Your task to perform on an android device: change the clock display to show seconds Image 0: 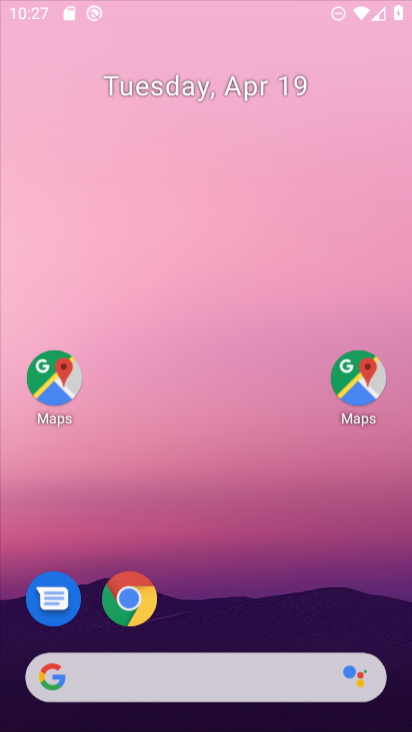
Step 0: drag from (311, 597) to (292, 87)
Your task to perform on an android device: change the clock display to show seconds Image 1: 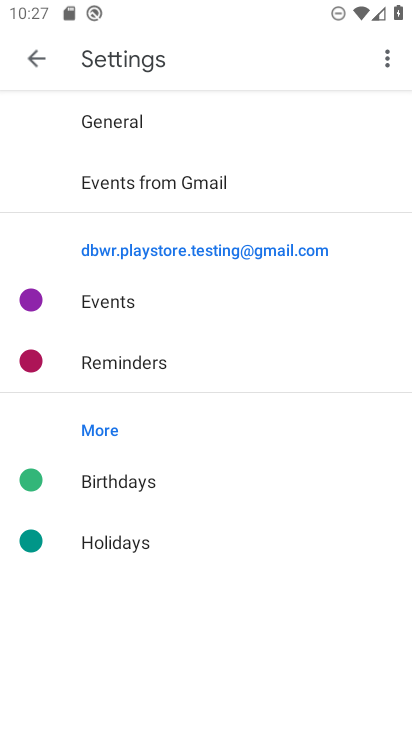
Step 1: press home button
Your task to perform on an android device: change the clock display to show seconds Image 2: 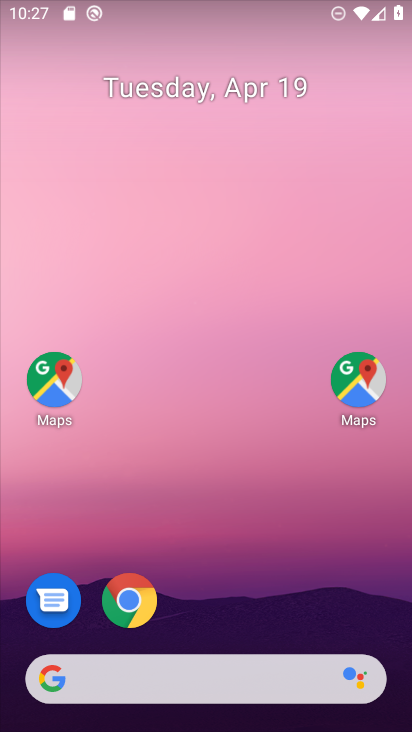
Step 2: drag from (221, 652) to (212, 69)
Your task to perform on an android device: change the clock display to show seconds Image 3: 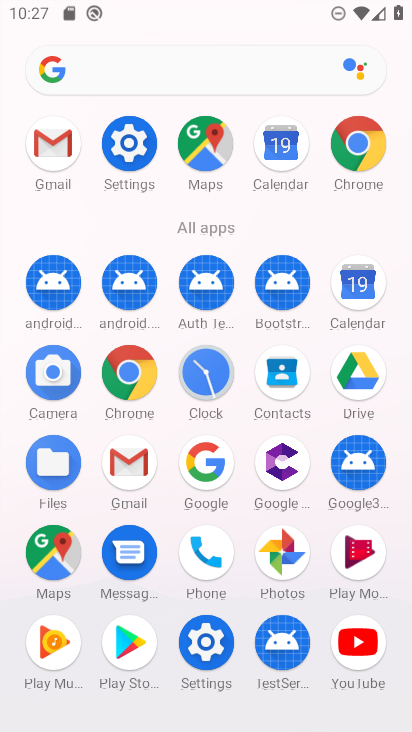
Step 3: click (208, 393)
Your task to perform on an android device: change the clock display to show seconds Image 4: 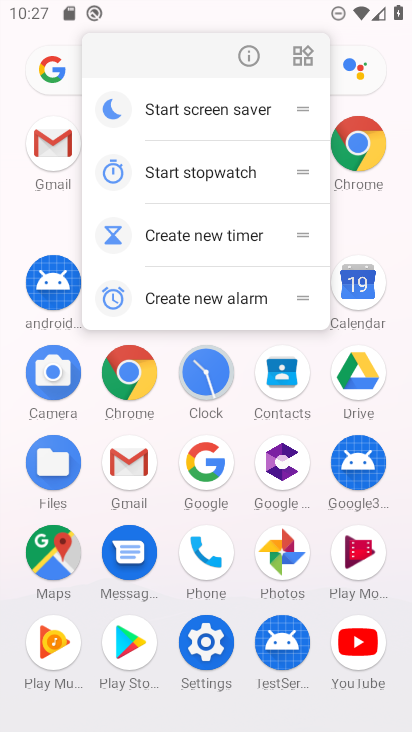
Step 4: click (213, 366)
Your task to perform on an android device: change the clock display to show seconds Image 5: 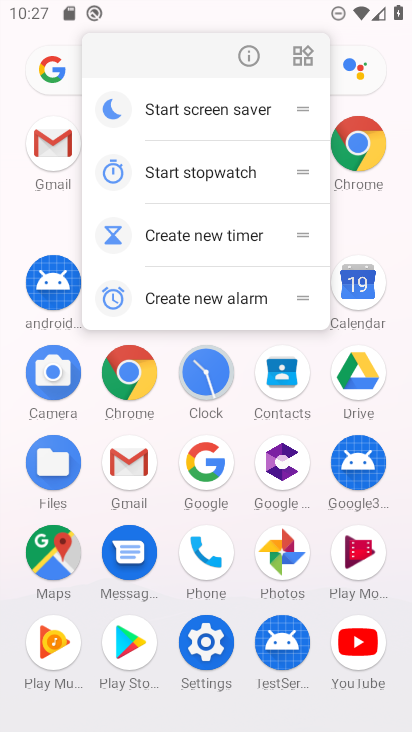
Step 5: click (212, 366)
Your task to perform on an android device: change the clock display to show seconds Image 6: 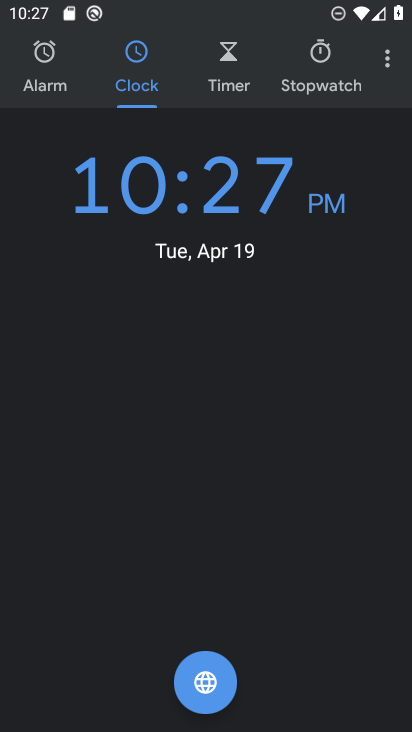
Step 6: click (394, 72)
Your task to perform on an android device: change the clock display to show seconds Image 7: 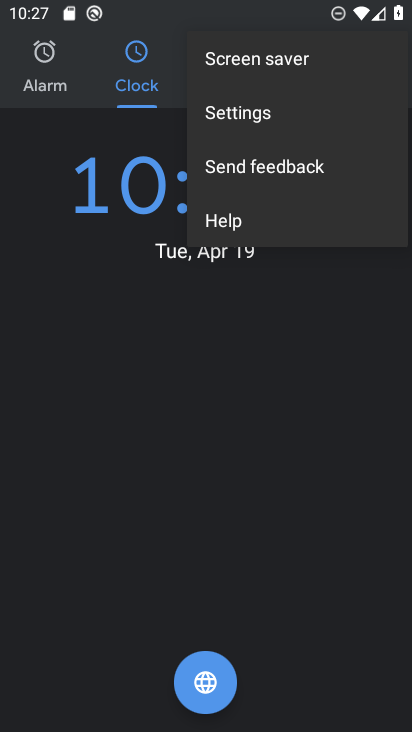
Step 7: click (285, 117)
Your task to perform on an android device: change the clock display to show seconds Image 8: 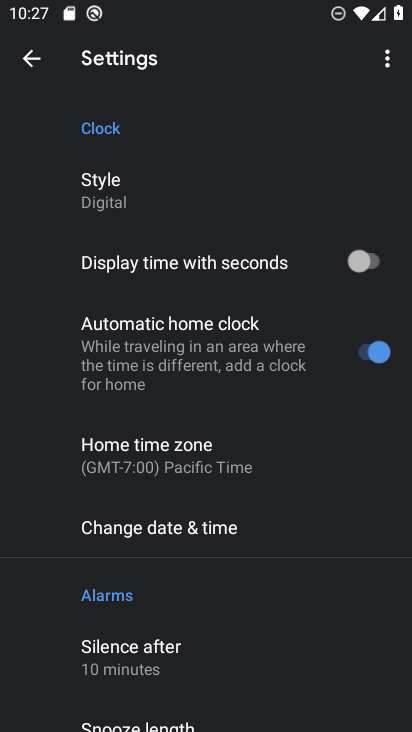
Step 8: click (374, 263)
Your task to perform on an android device: change the clock display to show seconds Image 9: 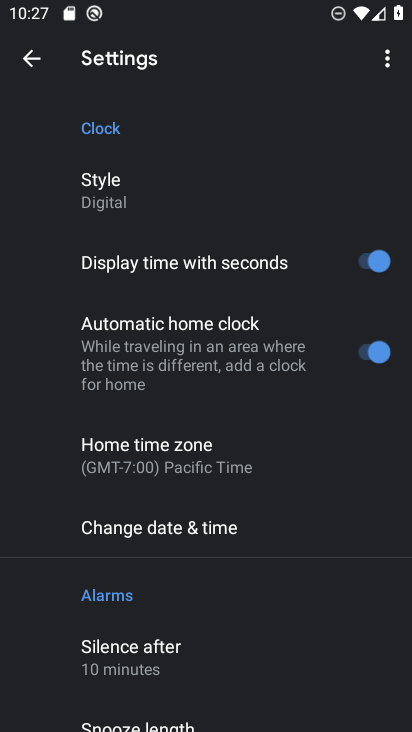
Step 9: task complete